Your task to perform on an android device: change alarm snooze length Image 0: 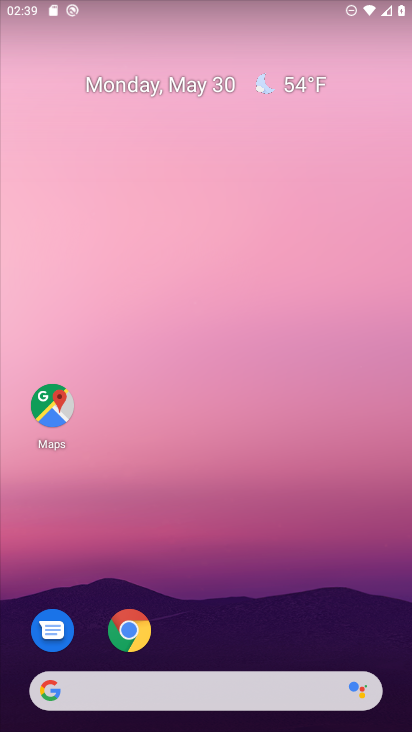
Step 0: press home button
Your task to perform on an android device: change alarm snooze length Image 1: 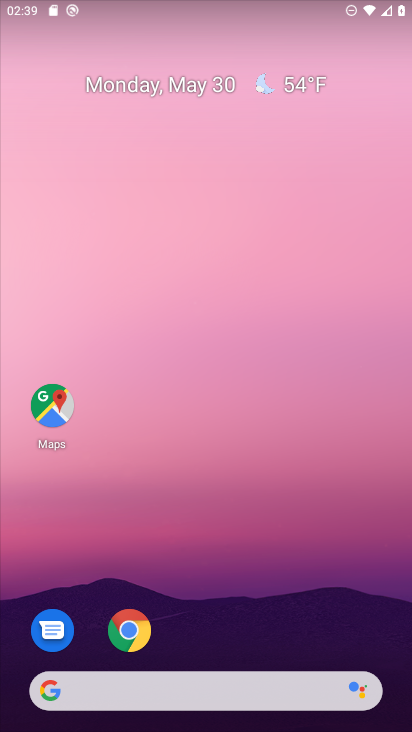
Step 1: drag from (190, 695) to (361, 117)
Your task to perform on an android device: change alarm snooze length Image 2: 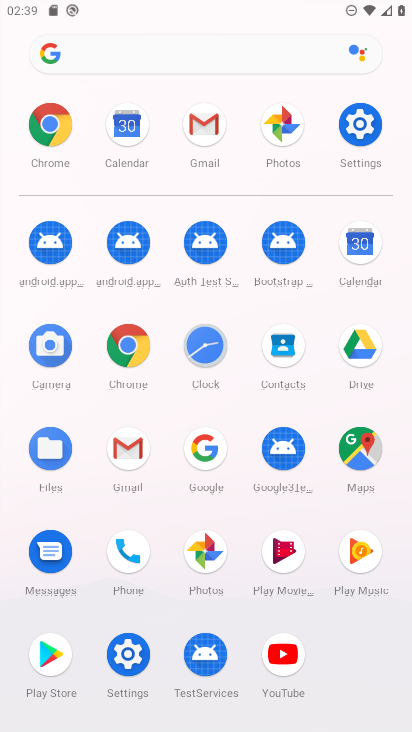
Step 2: click (355, 131)
Your task to perform on an android device: change alarm snooze length Image 3: 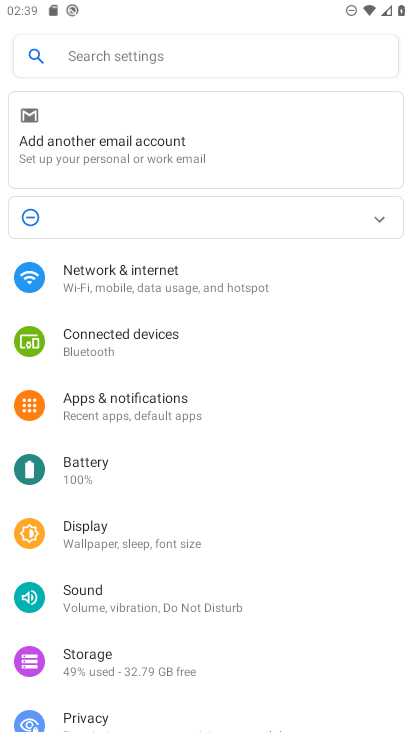
Step 3: press home button
Your task to perform on an android device: change alarm snooze length Image 4: 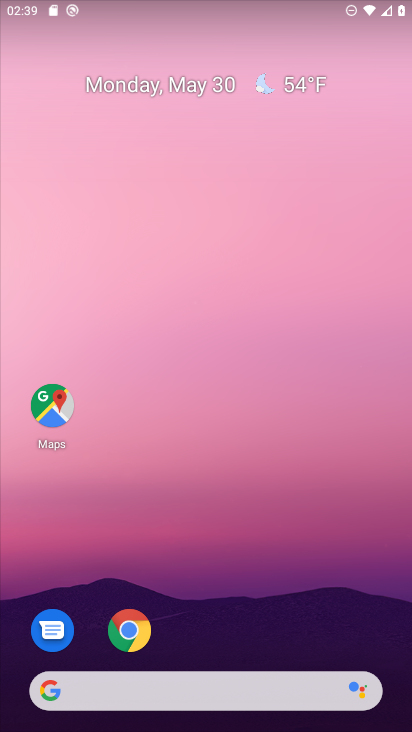
Step 4: click (342, 72)
Your task to perform on an android device: change alarm snooze length Image 5: 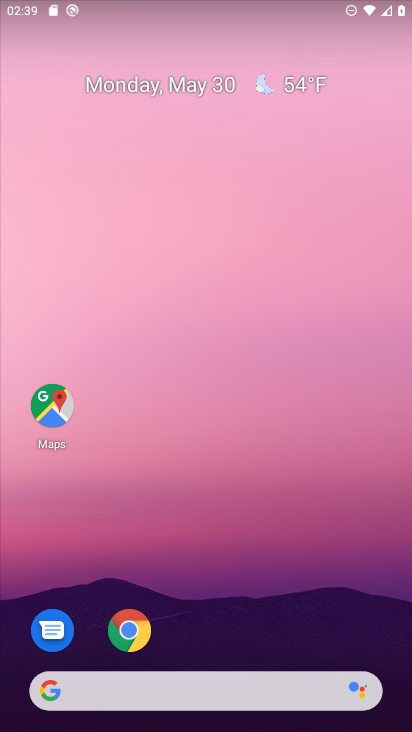
Step 5: drag from (176, 682) to (289, 131)
Your task to perform on an android device: change alarm snooze length Image 6: 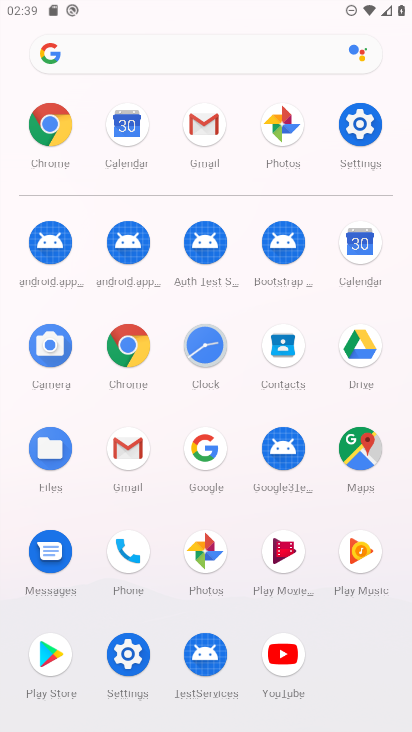
Step 6: click (206, 351)
Your task to perform on an android device: change alarm snooze length Image 7: 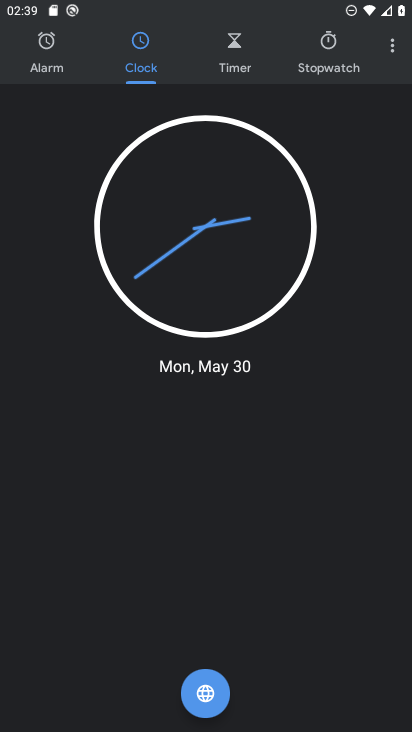
Step 7: click (390, 51)
Your task to perform on an android device: change alarm snooze length Image 8: 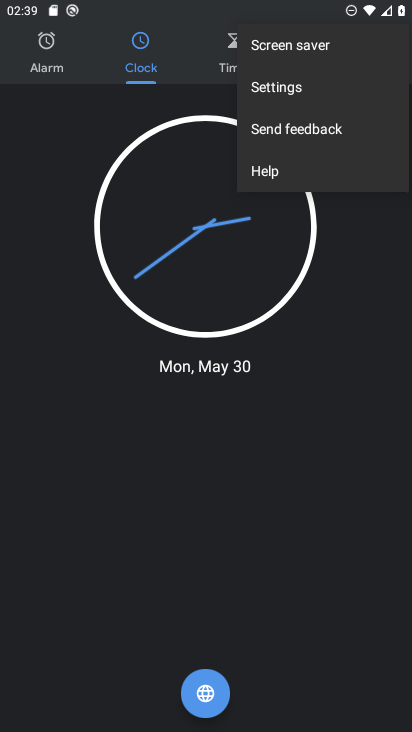
Step 8: click (291, 94)
Your task to perform on an android device: change alarm snooze length Image 9: 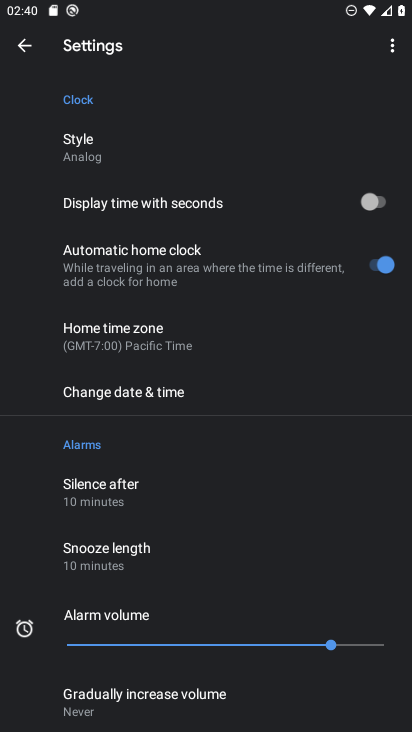
Step 9: click (108, 554)
Your task to perform on an android device: change alarm snooze length Image 10: 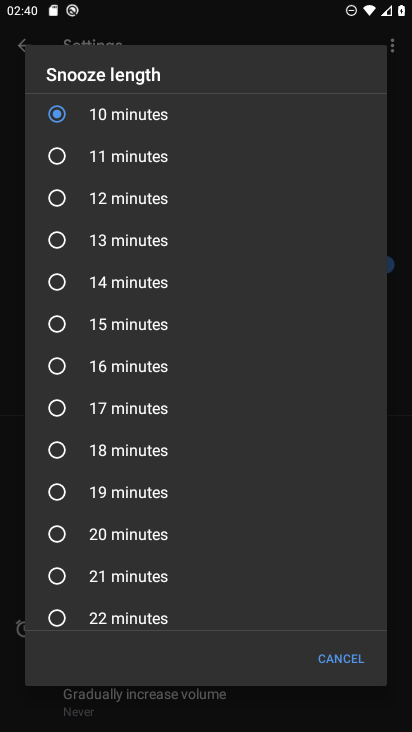
Step 10: click (55, 328)
Your task to perform on an android device: change alarm snooze length Image 11: 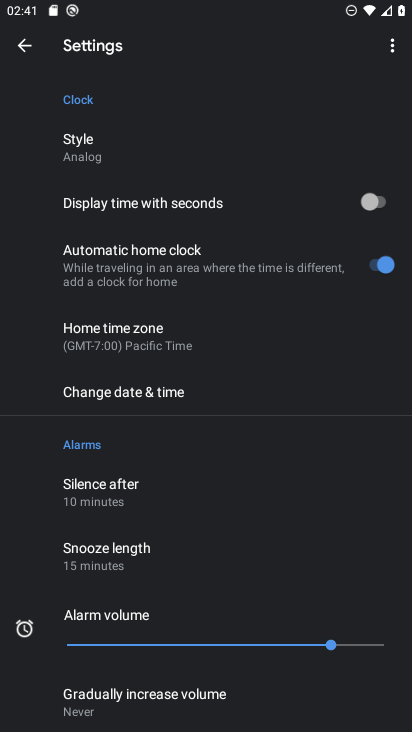
Step 11: task complete